Your task to perform on an android device: Open Amazon Image 0: 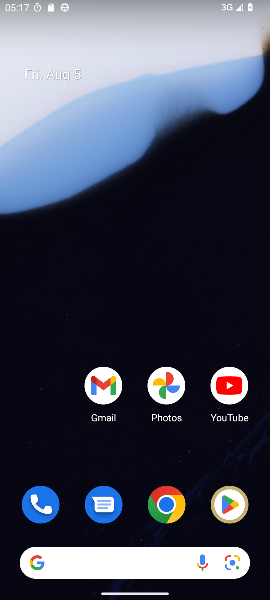
Step 0: click (254, 291)
Your task to perform on an android device: Open Amazon Image 1: 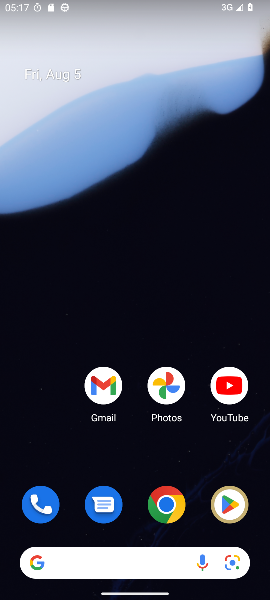
Step 1: click (83, 574)
Your task to perform on an android device: Open Amazon Image 2: 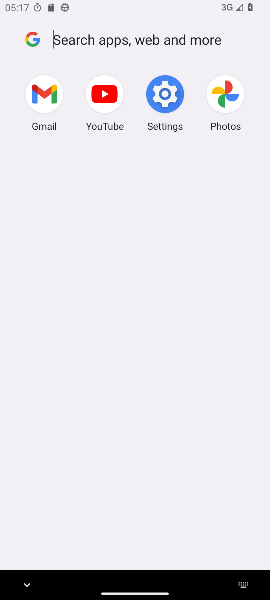
Step 2: type "Amazon"
Your task to perform on an android device: Open Amazon Image 3: 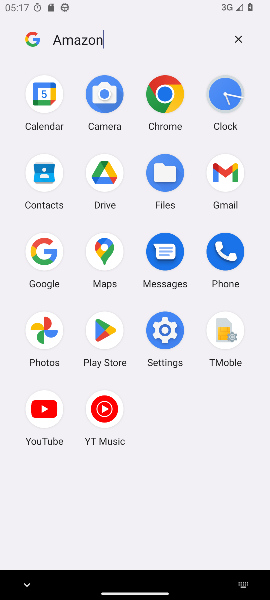
Step 3: task complete